Your task to perform on an android device: delete location history Image 0: 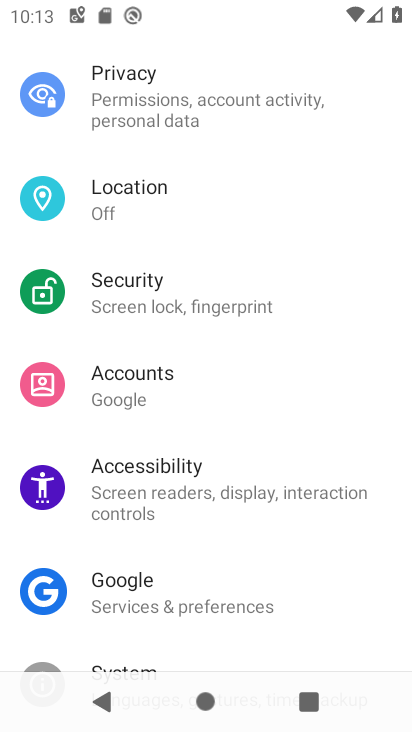
Step 0: press home button
Your task to perform on an android device: delete location history Image 1: 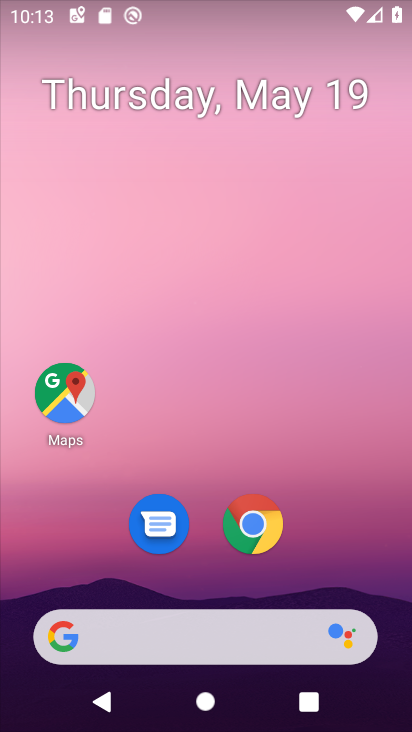
Step 1: click (60, 398)
Your task to perform on an android device: delete location history Image 2: 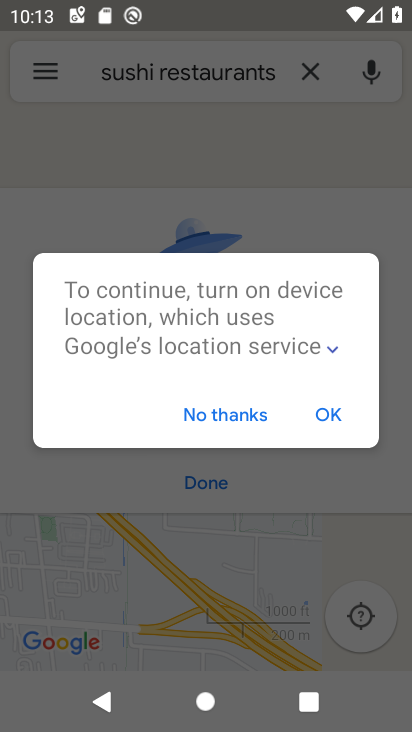
Step 2: click (53, 72)
Your task to perform on an android device: delete location history Image 3: 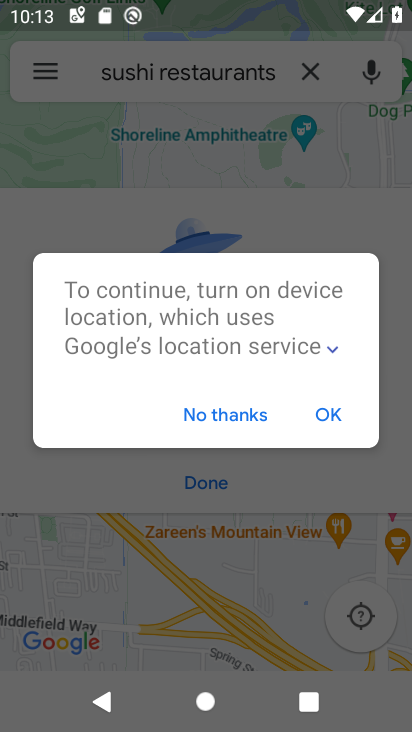
Step 3: click (47, 76)
Your task to perform on an android device: delete location history Image 4: 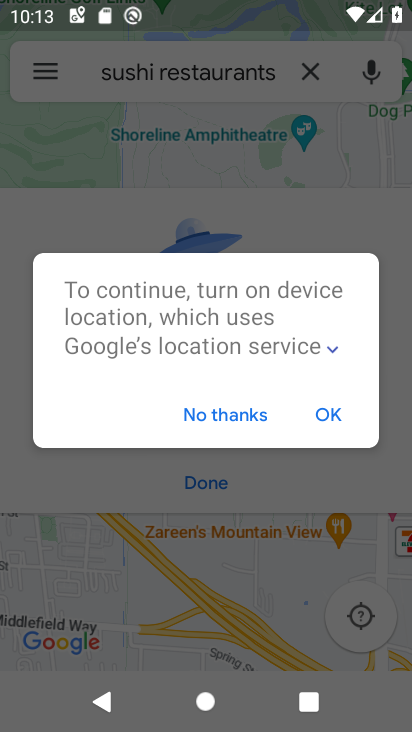
Step 4: click (209, 414)
Your task to perform on an android device: delete location history Image 5: 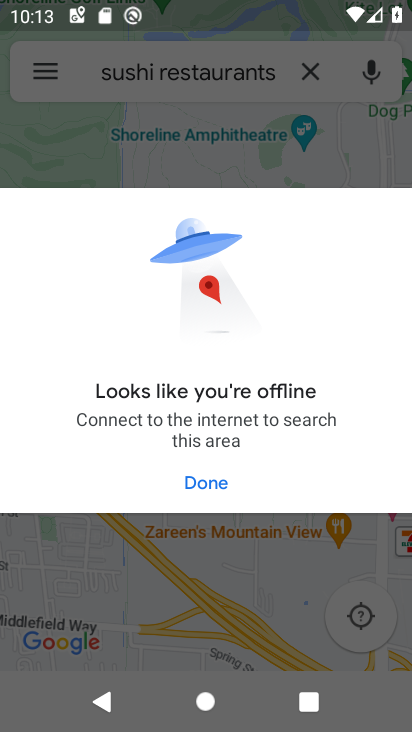
Step 5: click (214, 484)
Your task to perform on an android device: delete location history Image 6: 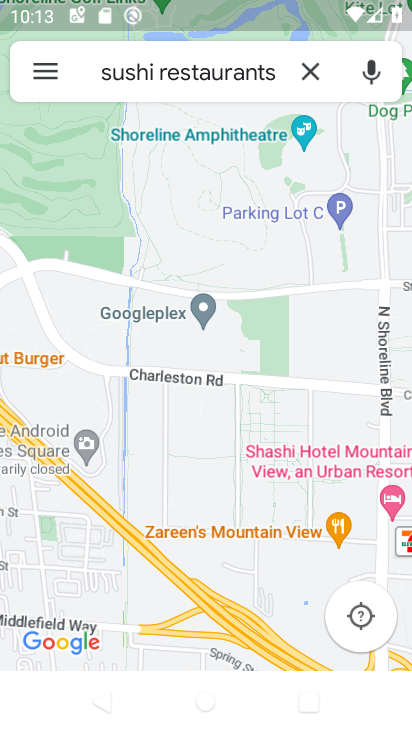
Step 6: click (49, 66)
Your task to perform on an android device: delete location history Image 7: 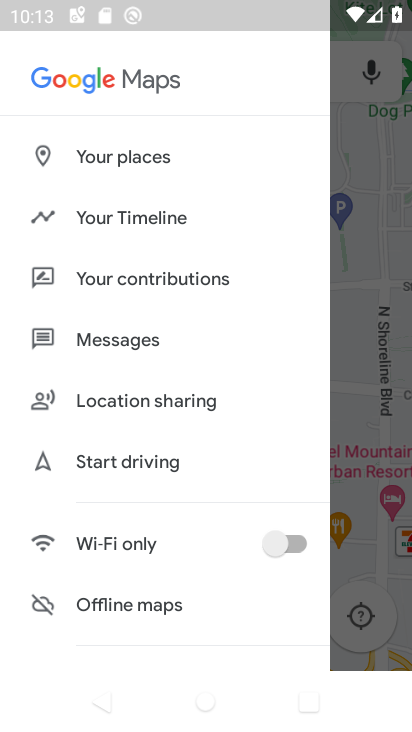
Step 7: click (140, 210)
Your task to perform on an android device: delete location history Image 8: 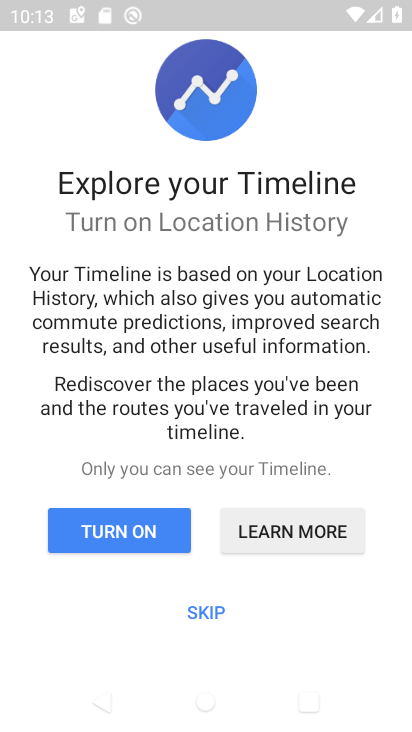
Step 8: click (173, 528)
Your task to perform on an android device: delete location history Image 9: 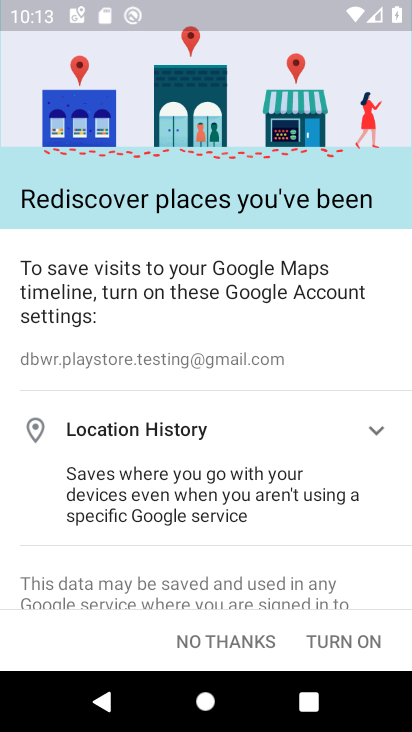
Step 9: click (327, 631)
Your task to perform on an android device: delete location history Image 10: 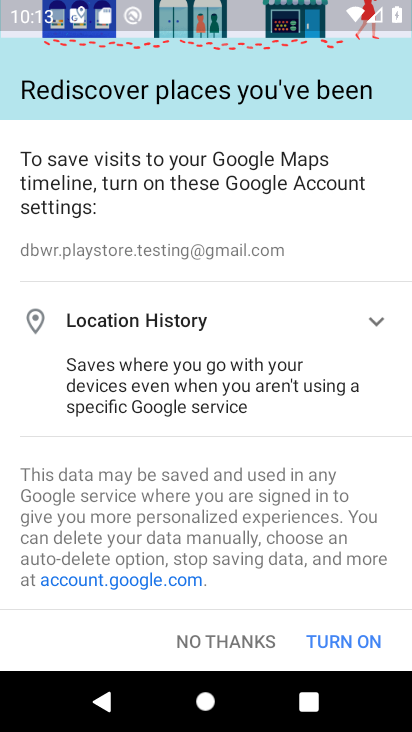
Step 10: click (327, 630)
Your task to perform on an android device: delete location history Image 11: 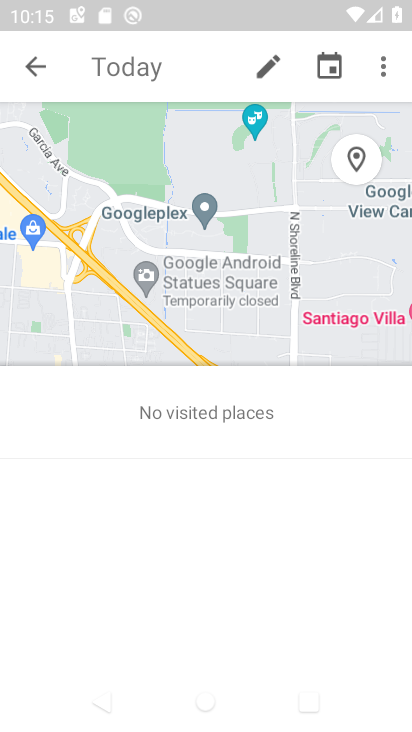
Step 11: click (383, 68)
Your task to perform on an android device: delete location history Image 12: 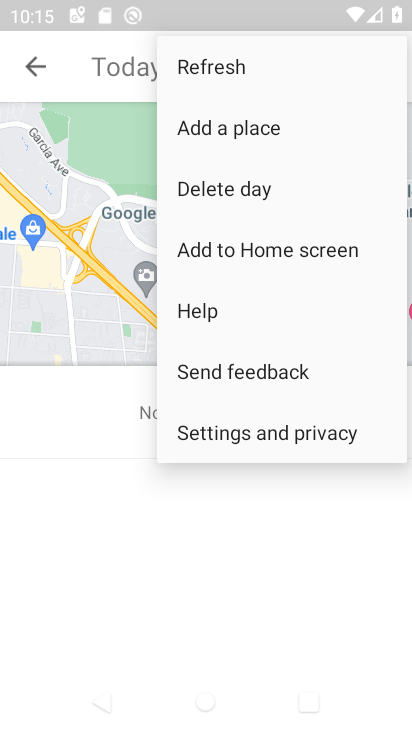
Step 12: click (317, 428)
Your task to perform on an android device: delete location history Image 13: 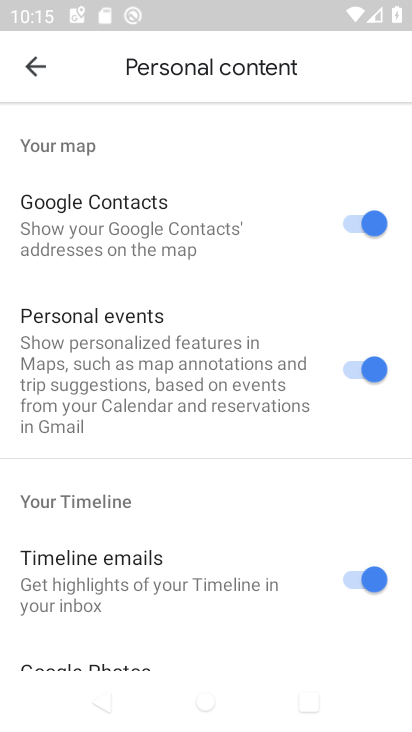
Step 13: drag from (221, 527) to (216, 155)
Your task to perform on an android device: delete location history Image 14: 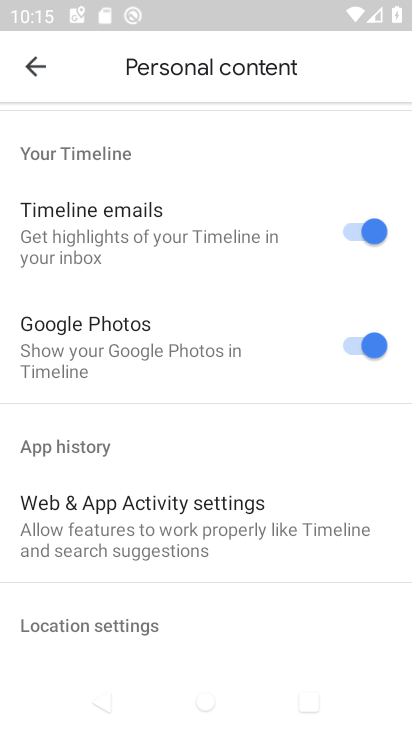
Step 14: drag from (198, 431) to (227, 115)
Your task to perform on an android device: delete location history Image 15: 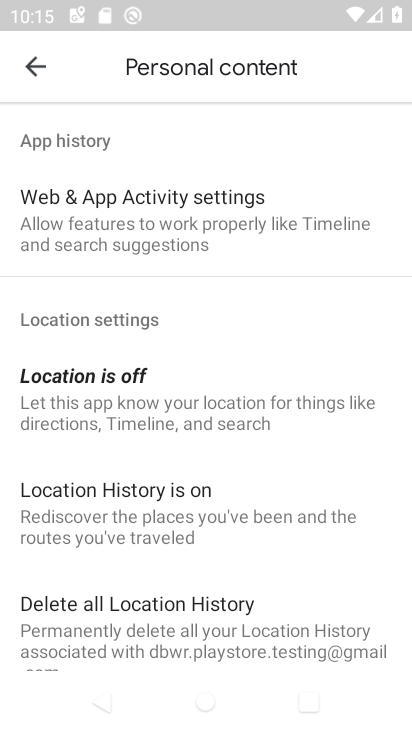
Step 15: drag from (227, 451) to (241, 188)
Your task to perform on an android device: delete location history Image 16: 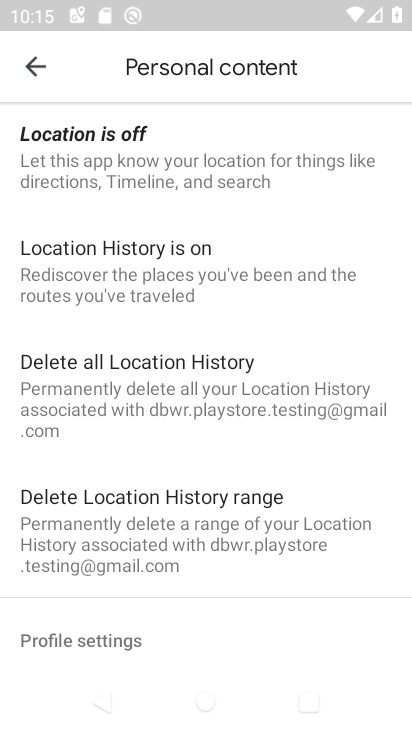
Step 16: click (246, 378)
Your task to perform on an android device: delete location history Image 17: 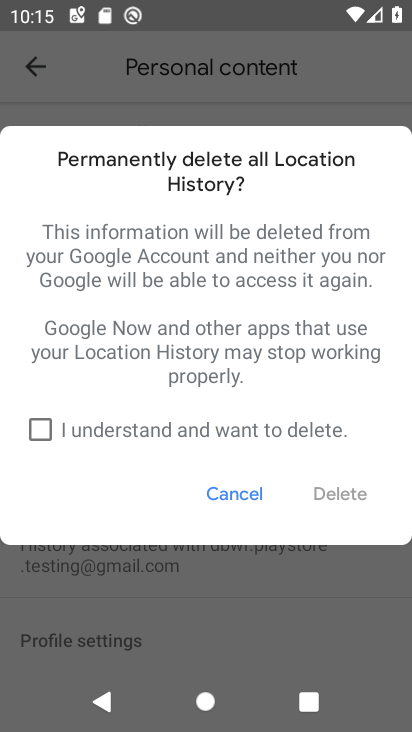
Step 17: click (35, 428)
Your task to perform on an android device: delete location history Image 18: 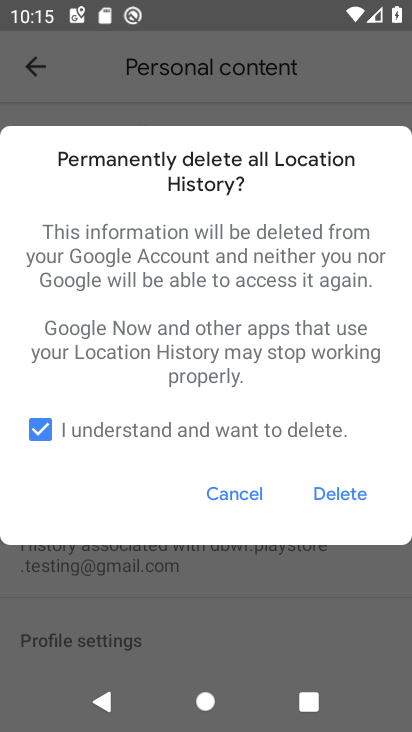
Step 18: click (333, 490)
Your task to perform on an android device: delete location history Image 19: 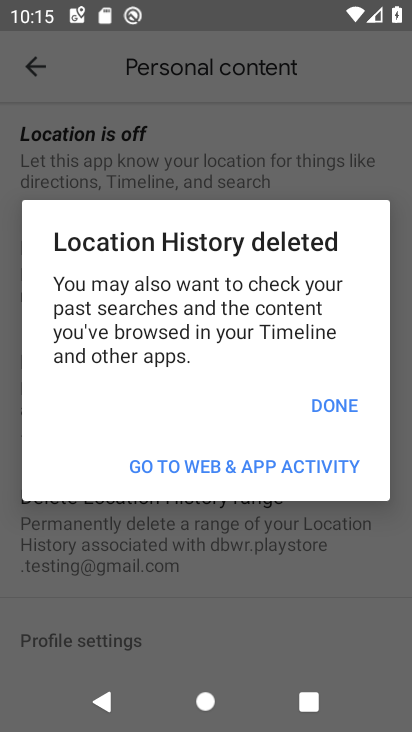
Step 19: click (342, 389)
Your task to perform on an android device: delete location history Image 20: 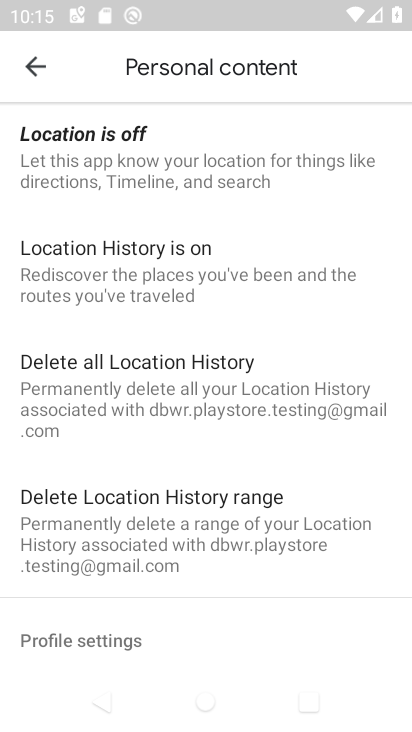
Step 20: task complete